Your task to perform on an android device: Open Google Image 0: 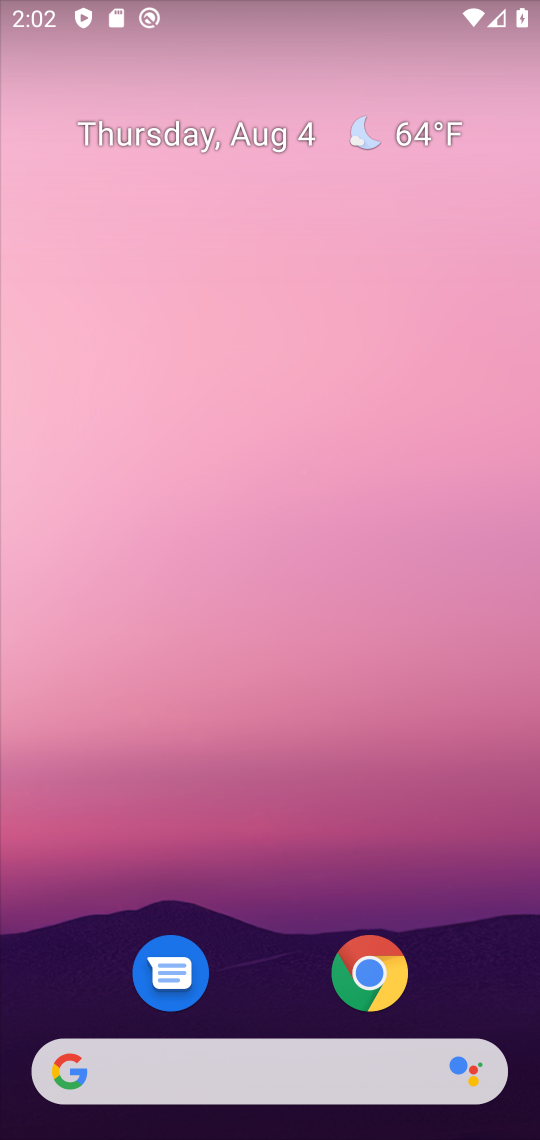
Step 0: click (312, 1064)
Your task to perform on an android device: Open Google Image 1: 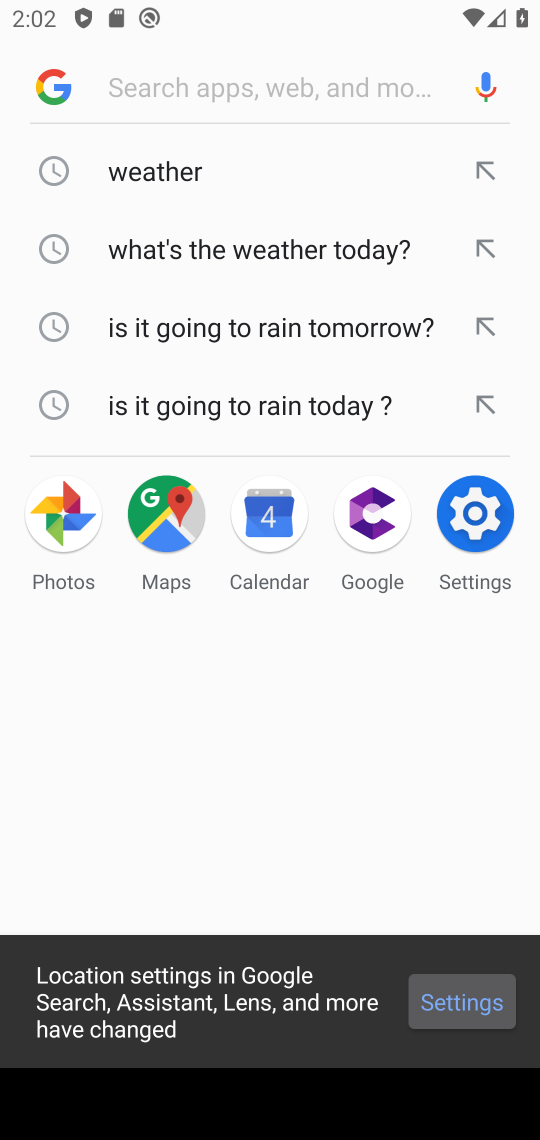
Step 1: task complete